Your task to perform on an android device: toggle priority inbox in the gmail app Image 0: 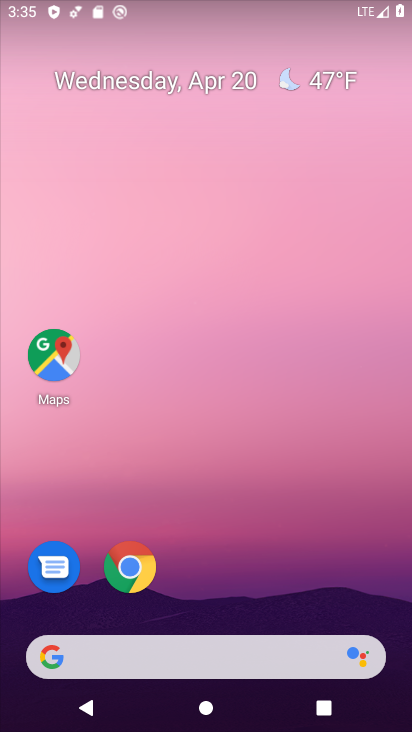
Step 0: drag from (309, 504) to (240, 29)
Your task to perform on an android device: toggle priority inbox in the gmail app Image 1: 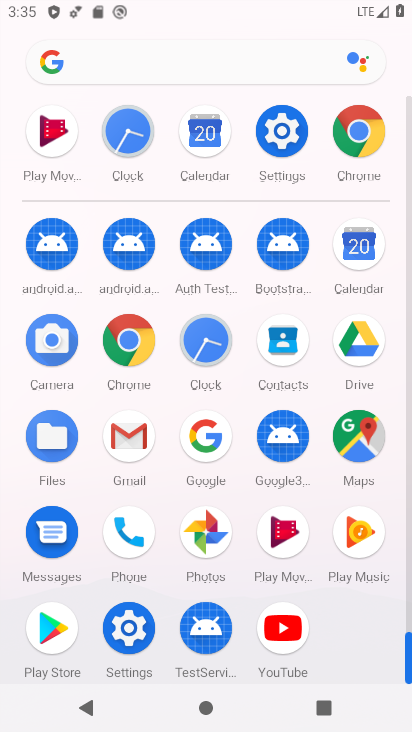
Step 1: click (128, 432)
Your task to perform on an android device: toggle priority inbox in the gmail app Image 2: 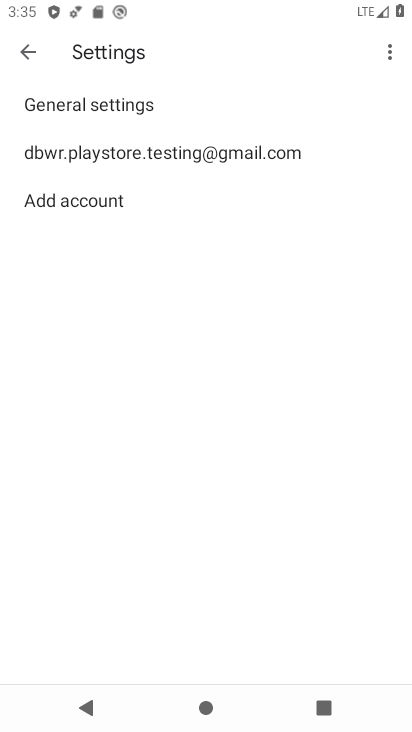
Step 2: click (125, 154)
Your task to perform on an android device: toggle priority inbox in the gmail app Image 3: 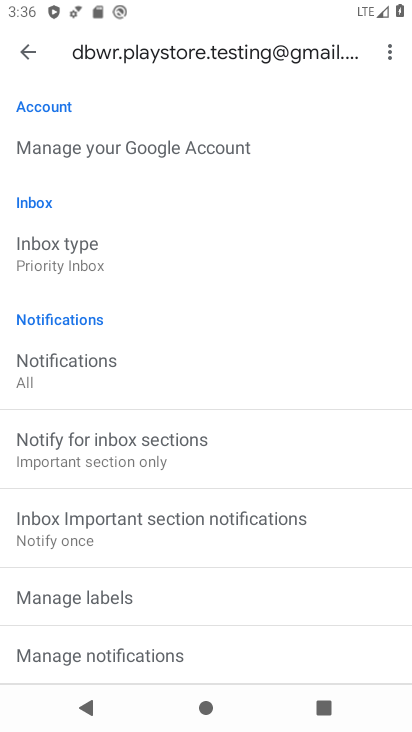
Step 3: drag from (285, 570) to (245, 328)
Your task to perform on an android device: toggle priority inbox in the gmail app Image 4: 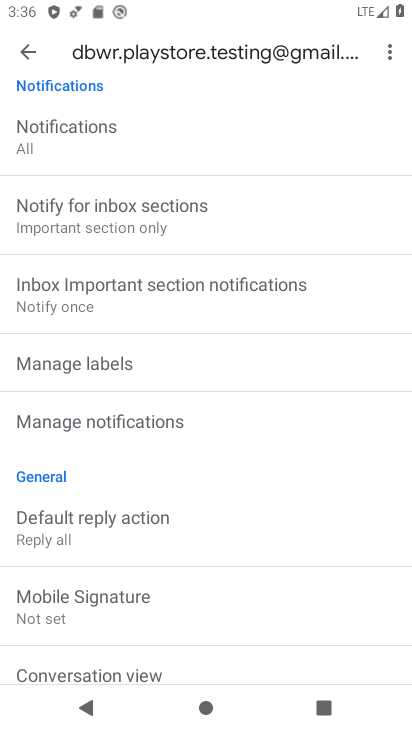
Step 4: drag from (172, 191) to (185, 530)
Your task to perform on an android device: toggle priority inbox in the gmail app Image 5: 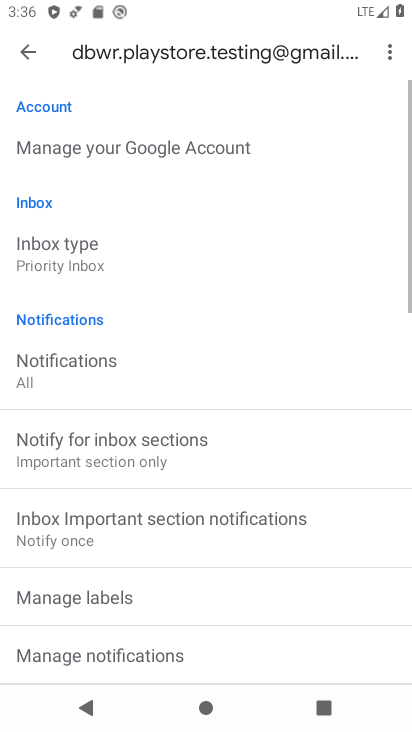
Step 5: click (93, 254)
Your task to perform on an android device: toggle priority inbox in the gmail app Image 6: 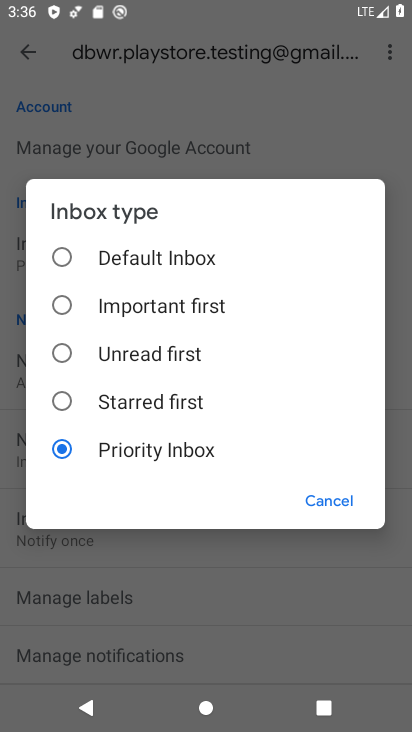
Step 6: click (122, 259)
Your task to perform on an android device: toggle priority inbox in the gmail app Image 7: 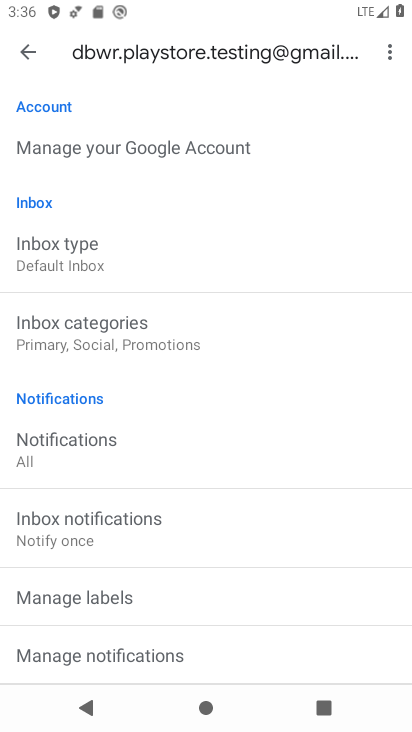
Step 7: task complete